Your task to perform on an android device: Search for sushi restaurants on Maps Image 0: 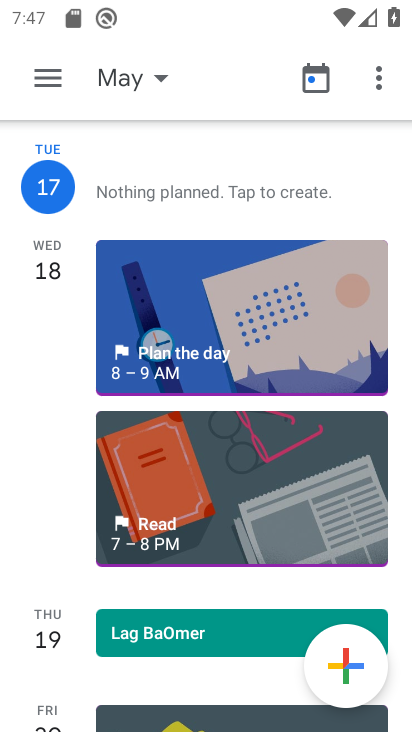
Step 0: press home button
Your task to perform on an android device: Search for sushi restaurants on Maps Image 1: 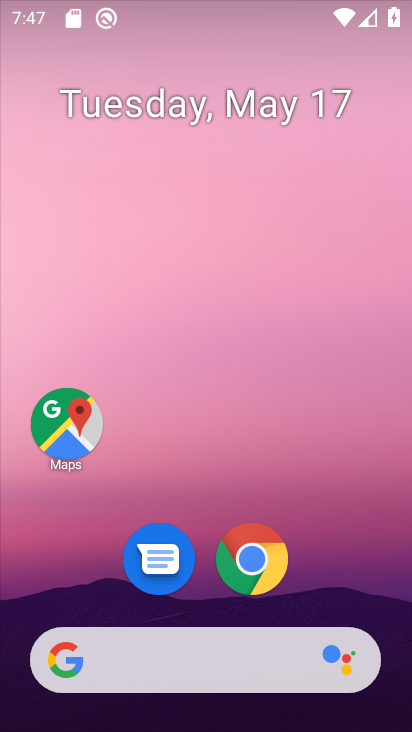
Step 1: drag from (193, 728) to (209, 85)
Your task to perform on an android device: Search for sushi restaurants on Maps Image 2: 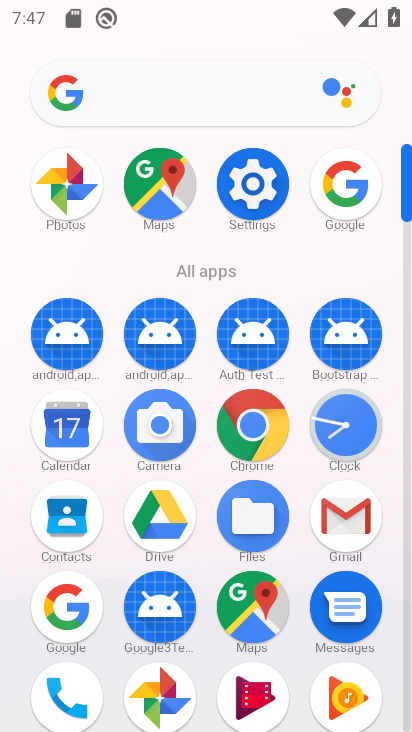
Step 2: drag from (187, 488) to (251, 161)
Your task to perform on an android device: Search for sushi restaurants on Maps Image 3: 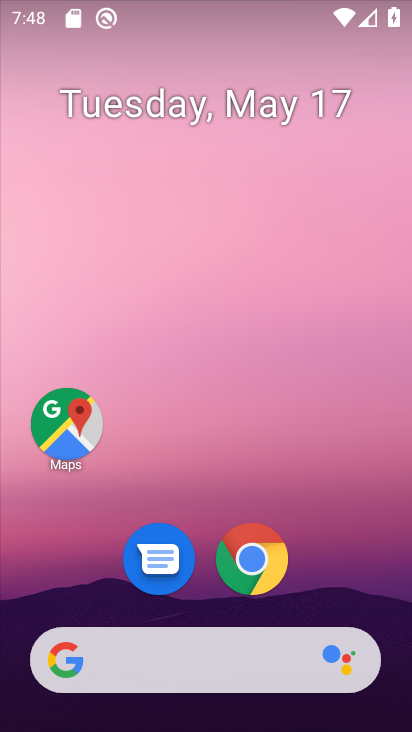
Step 3: click (52, 448)
Your task to perform on an android device: Search for sushi restaurants on Maps Image 4: 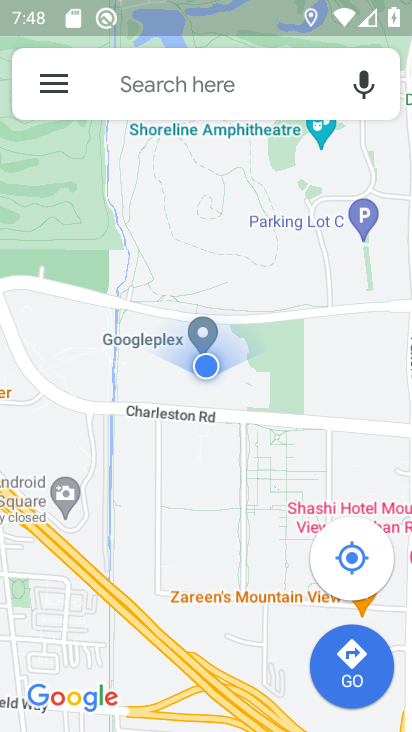
Step 4: click (141, 93)
Your task to perform on an android device: Search for sushi restaurants on Maps Image 5: 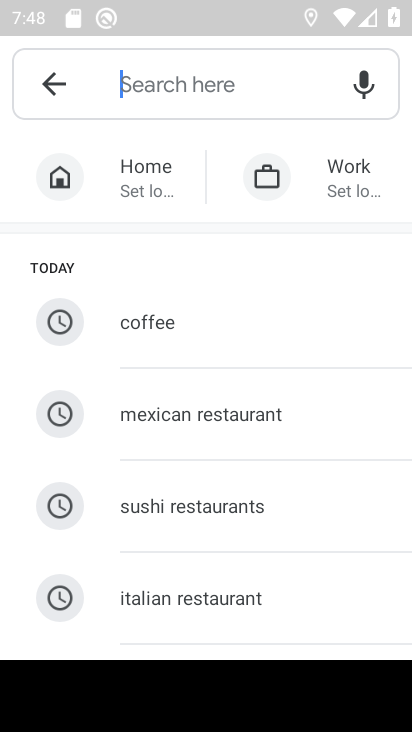
Step 5: click (234, 525)
Your task to perform on an android device: Search for sushi restaurants on Maps Image 6: 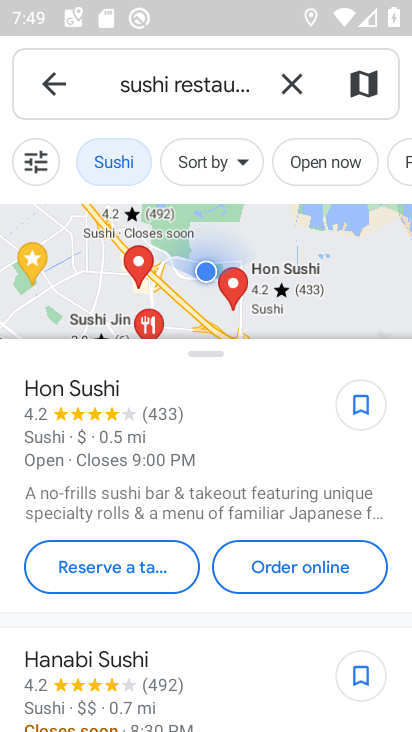
Step 6: task complete